Your task to perform on an android device: Open Chrome and go to settings Image 0: 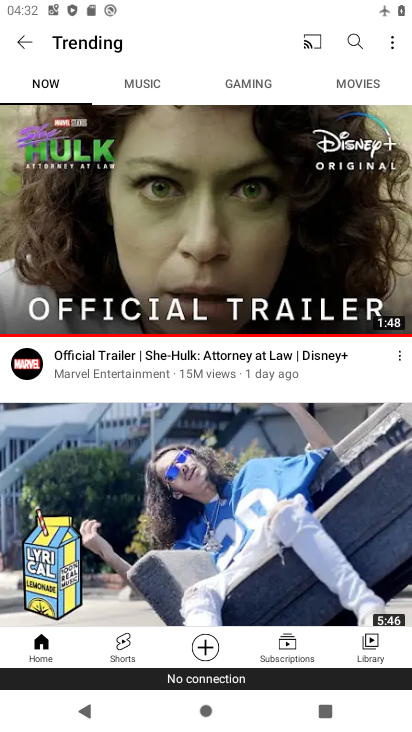
Step 0: press home button
Your task to perform on an android device: Open Chrome and go to settings Image 1: 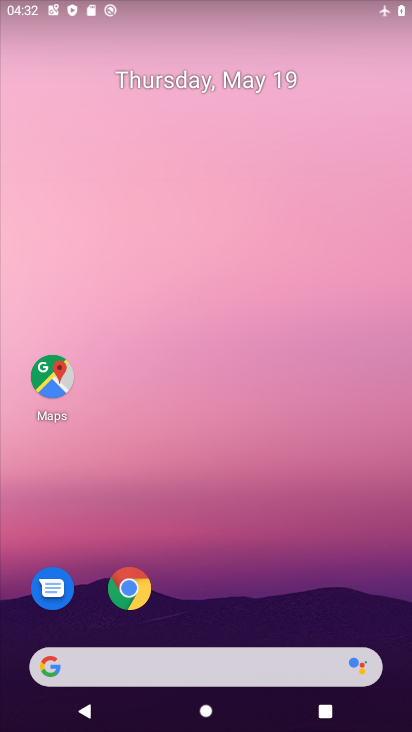
Step 1: click (152, 575)
Your task to perform on an android device: Open Chrome and go to settings Image 2: 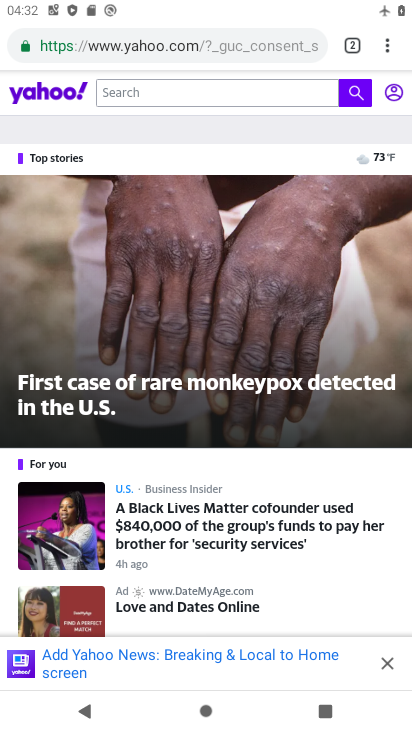
Step 2: click (387, 52)
Your task to perform on an android device: Open Chrome and go to settings Image 3: 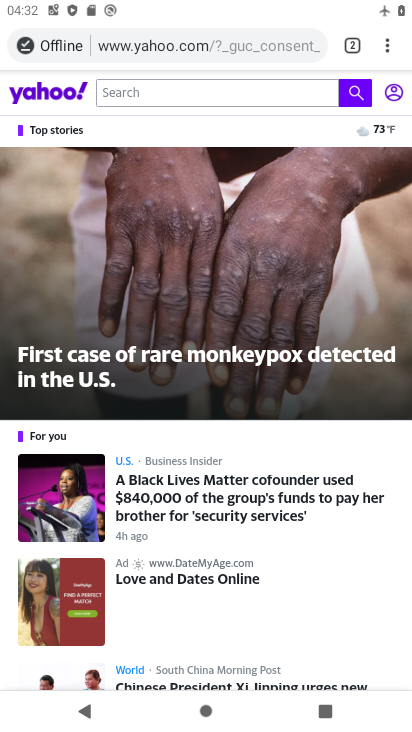
Step 3: click (393, 43)
Your task to perform on an android device: Open Chrome and go to settings Image 4: 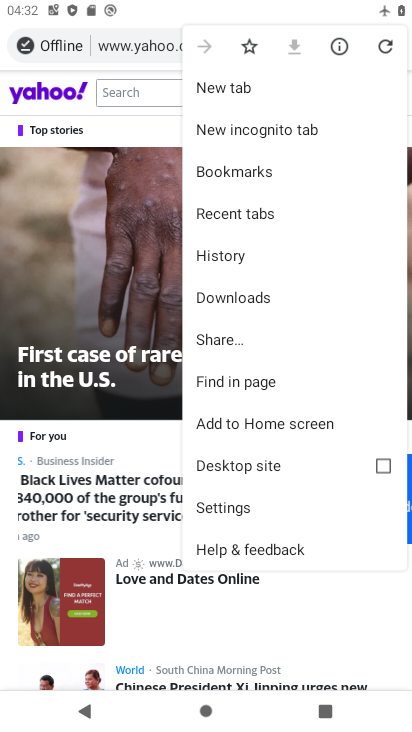
Step 4: click (230, 504)
Your task to perform on an android device: Open Chrome and go to settings Image 5: 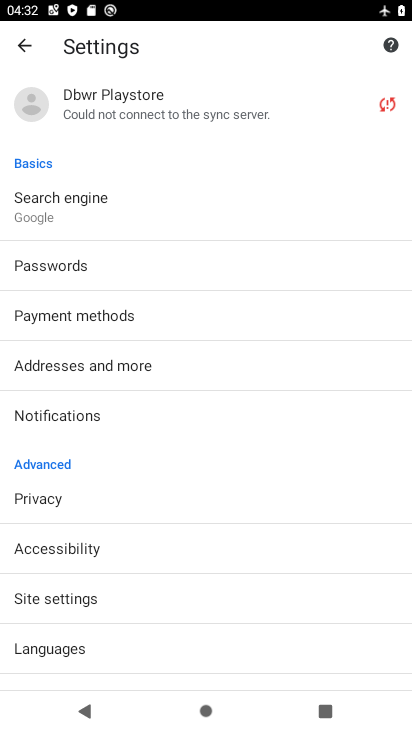
Step 5: task complete